Your task to perform on an android device: Go to battery settings Image 0: 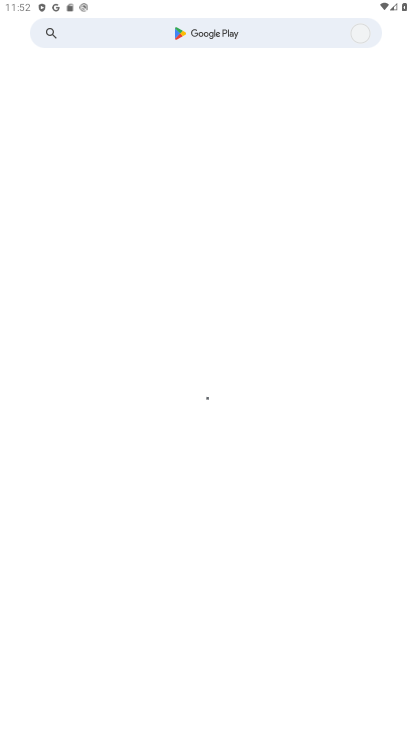
Step 0: press home button
Your task to perform on an android device: Go to battery settings Image 1: 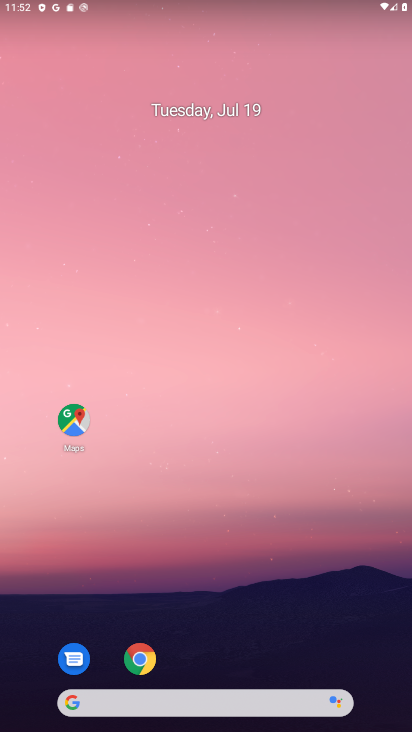
Step 1: drag from (204, 665) to (226, 40)
Your task to perform on an android device: Go to battery settings Image 2: 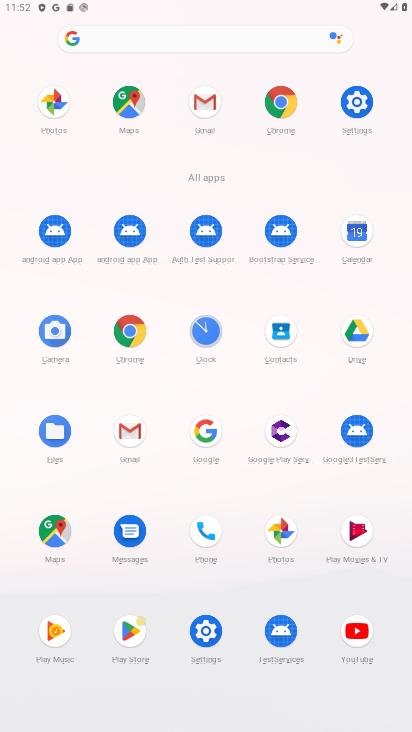
Step 2: click (358, 96)
Your task to perform on an android device: Go to battery settings Image 3: 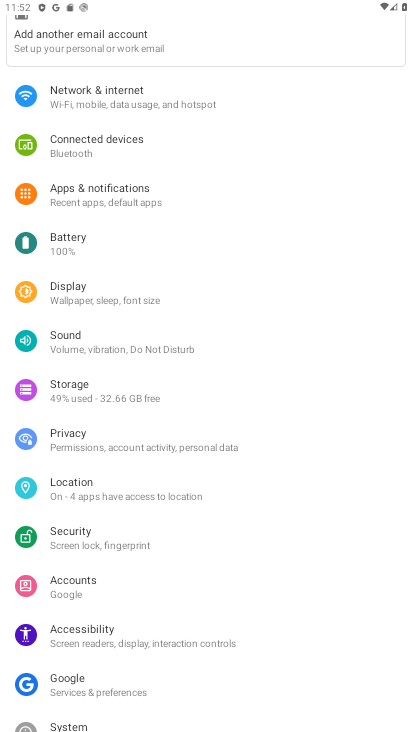
Step 3: click (99, 238)
Your task to perform on an android device: Go to battery settings Image 4: 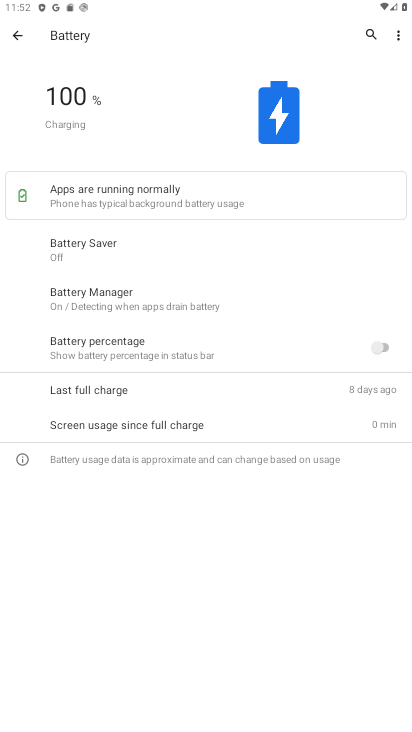
Step 4: task complete